Your task to perform on an android device: Check the news Image 0: 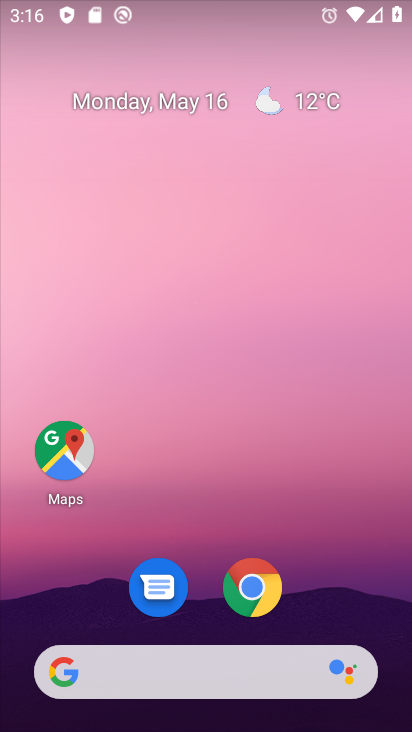
Step 0: drag from (6, 238) to (138, 244)
Your task to perform on an android device: Check the news Image 1: 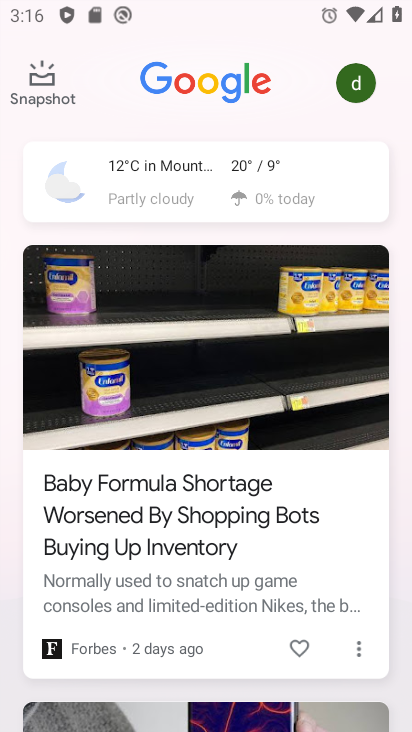
Step 1: task complete